Your task to perform on an android device: Open eBay Image 0: 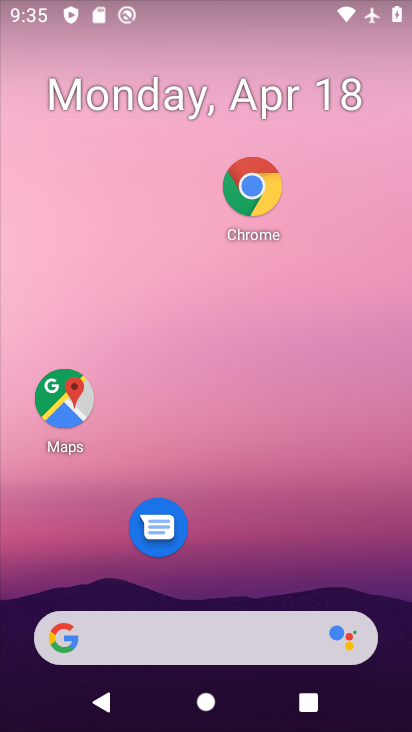
Step 0: click (250, 176)
Your task to perform on an android device: Open eBay Image 1: 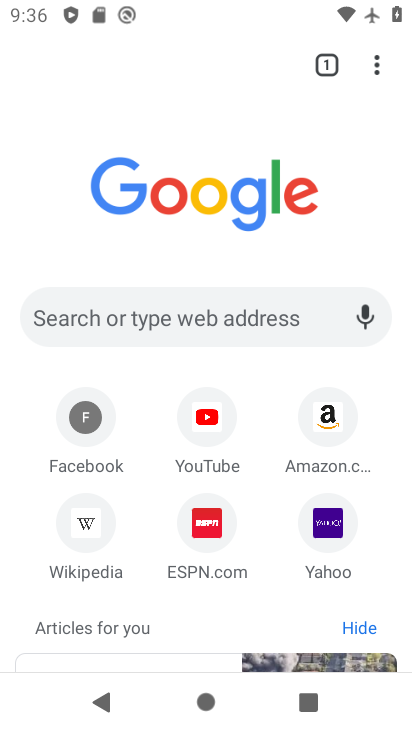
Step 1: click (241, 321)
Your task to perform on an android device: Open eBay Image 2: 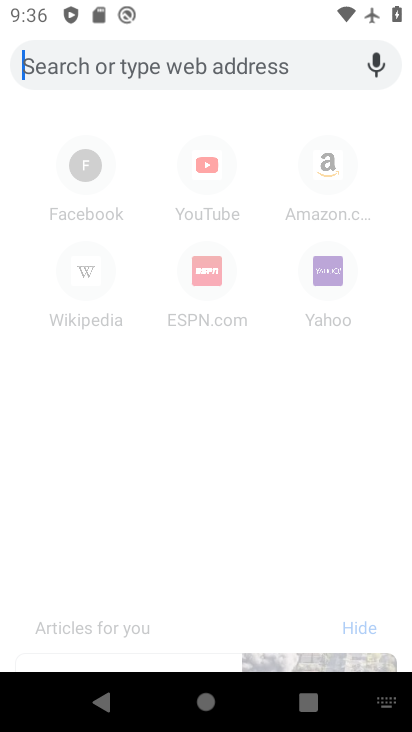
Step 2: type "ebay"
Your task to perform on an android device: Open eBay Image 3: 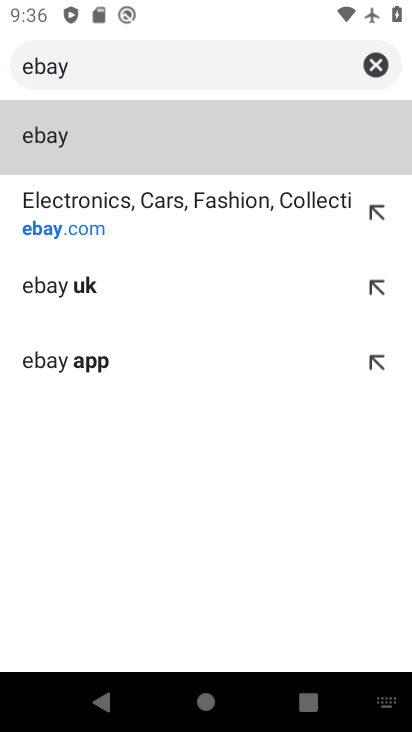
Step 3: click (268, 155)
Your task to perform on an android device: Open eBay Image 4: 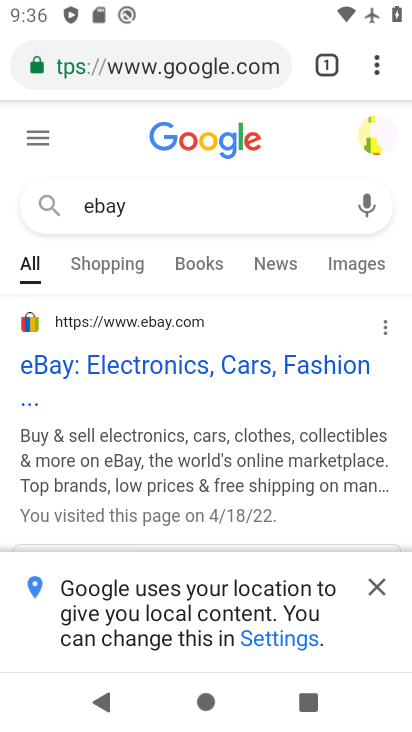
Step 4: click (170, 355)
Your task to perform on an android device: Open eBay Image 5: 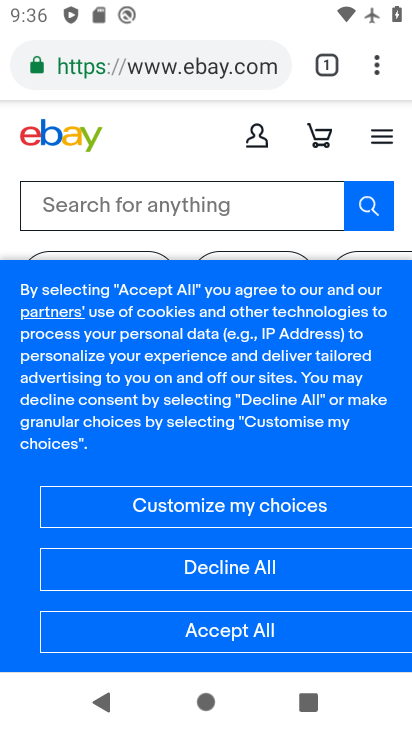
Step 5: task complete